Your task to perform on an android device: turn off priority inbox in the gmail app Image 0: 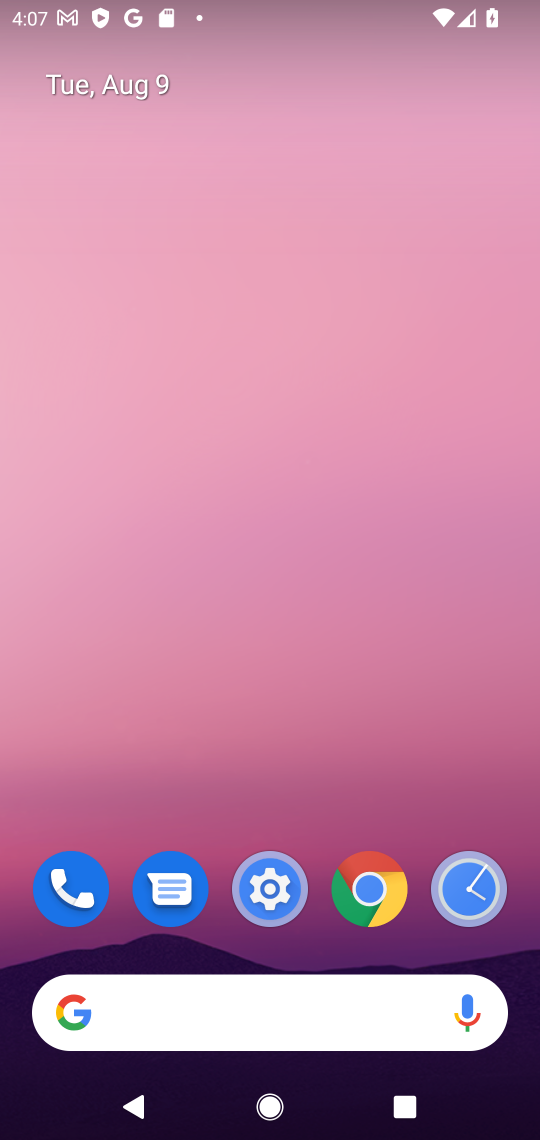
Step 0: drag from (276, 729) to (356, 0)
Your task to perform on an android device: turn off priority inbox in the gmail app Image 1: 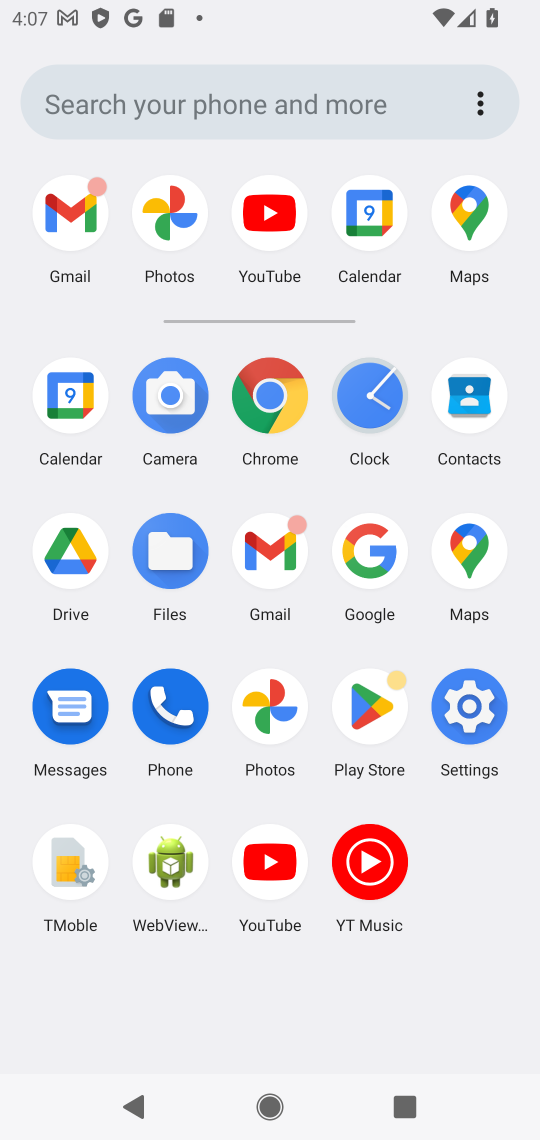
Step 1: click (73, 214)
Your task to perform on an android device: turn off priority inbox in the gmail app Image 2: 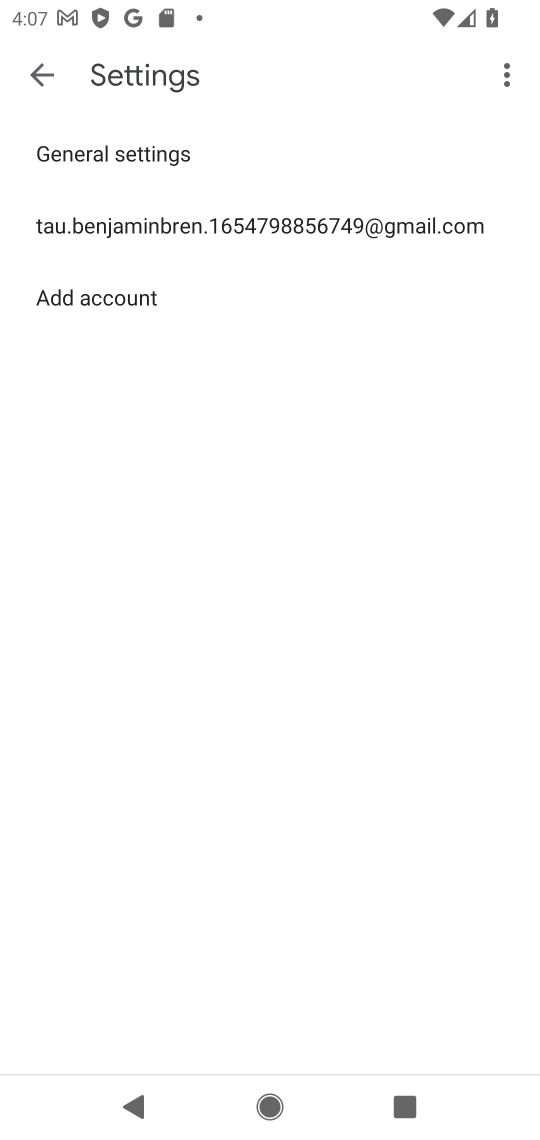
Step 2: click (187, 230)
Your task to perform on an android device: turn off priority inbox in the gmail app Image 3: 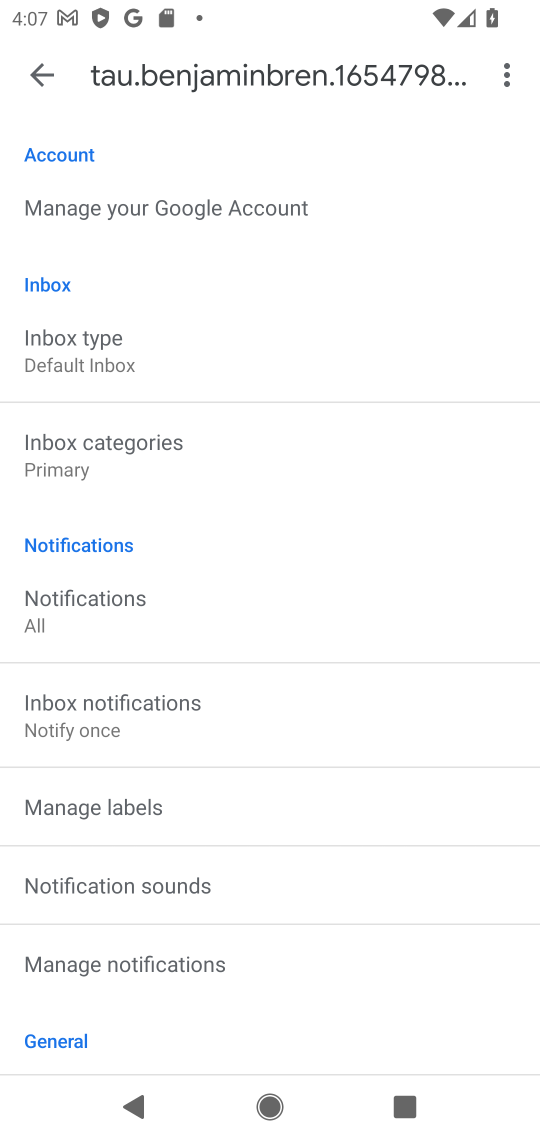
Step 3: click (122, 342)
Your task to perform on an android device: turn off priority inbox in the gmail app Image 4: 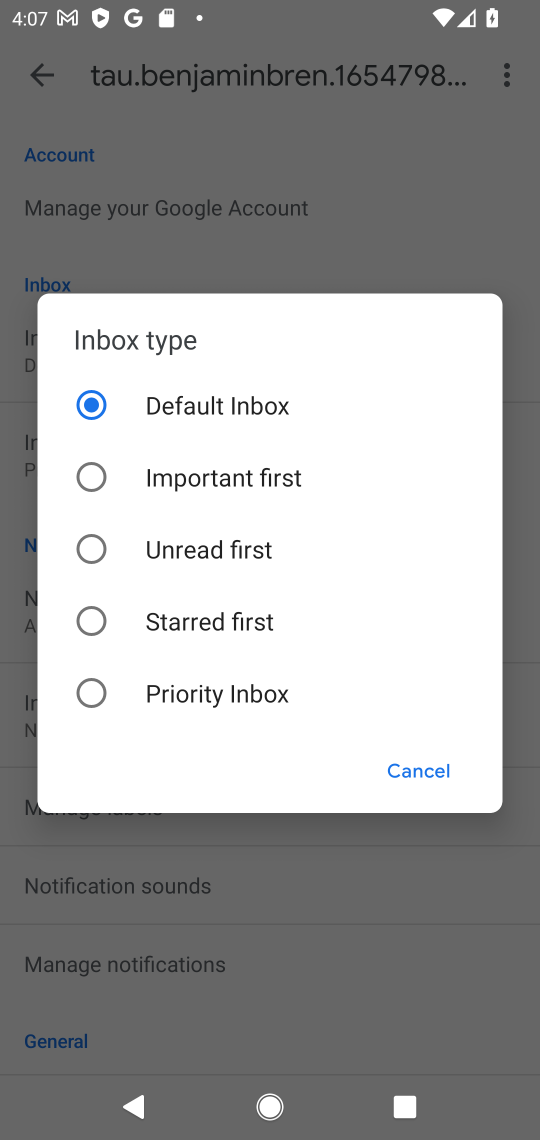
Step 4: click (163, 401)
Your task to perform on an android device: turn off priority inbox in the gmail app Image 5: 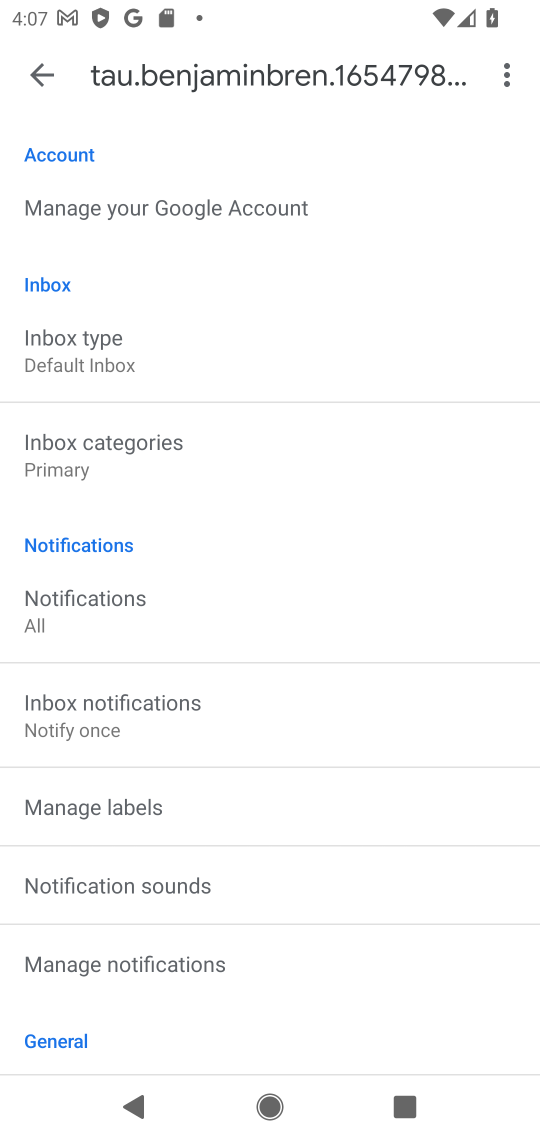
Step 5: task complete